Your task to perform on an android device: Show me the alarms in the clock app Image 0: 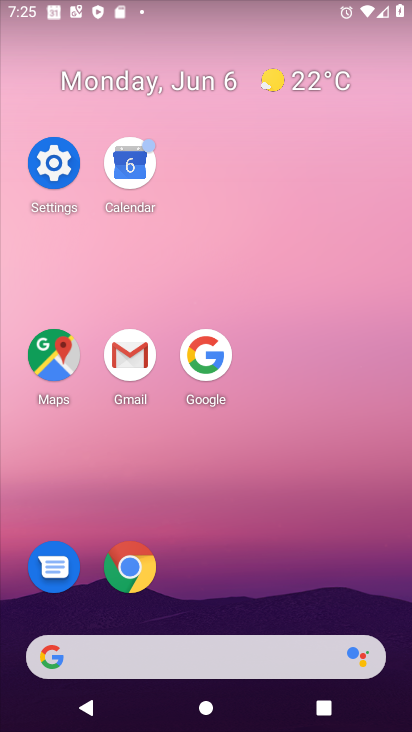
Step 0: drag from (280, 509) to (348, 98)
Your task to perform on an android device: Show me the alarms in the clock app Image 1: 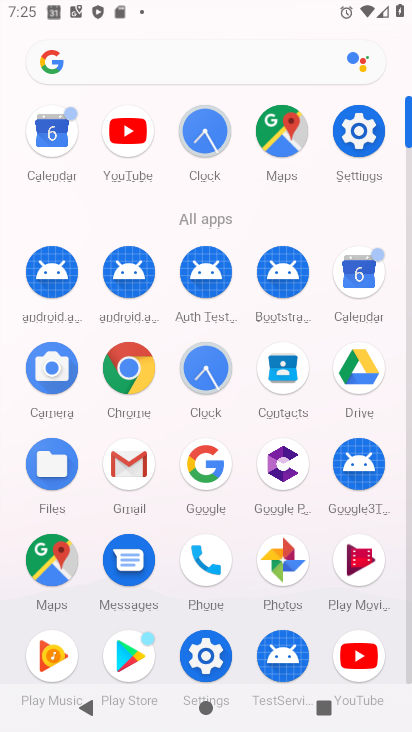
Step 1: click (206, 130)
Your task to perform on an android device: Show me the alarms in the clock app Image 2: 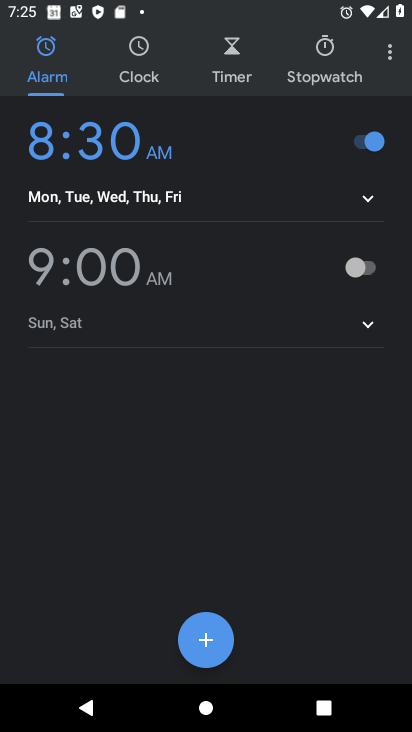
Step 2: task complete